Your task to perform on an android device: turn on the 24-hour format for clock Image 0: 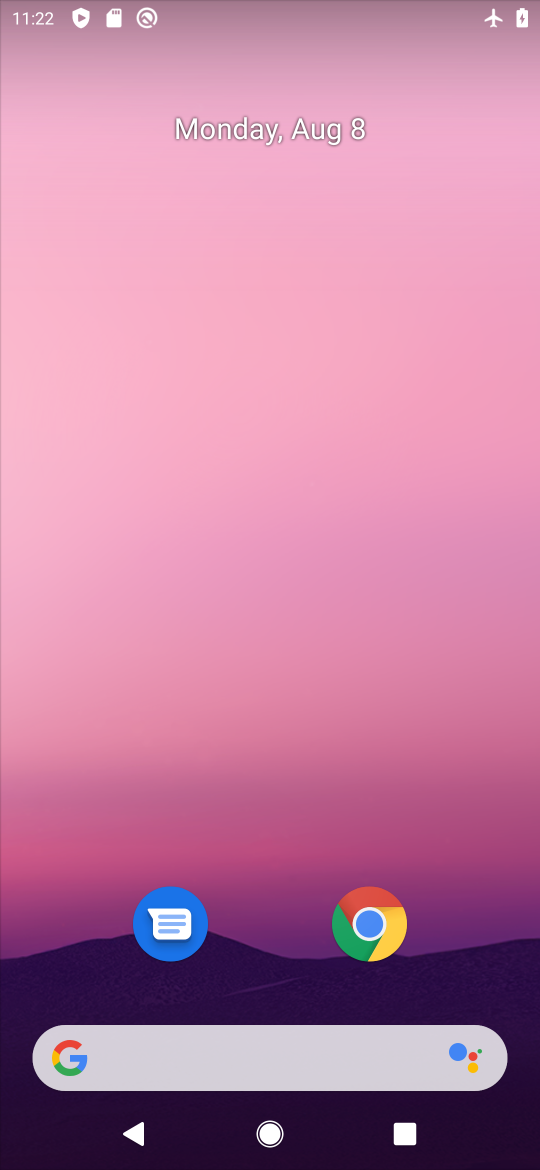
Step 0: drag from (237, 1000) to (253, 162)
Your task to perform on an android device: turn on the 24-hour format for clock Image 1: 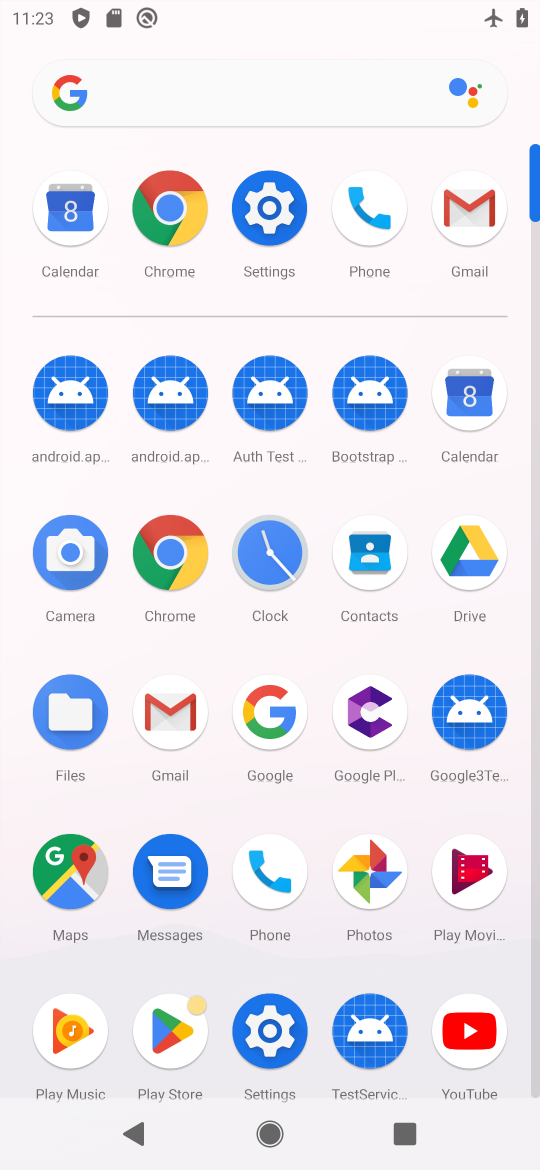
Step 1: click (287, 546)
Your task to perform on an android device: turn on the 24-hour format for clock Image 2: 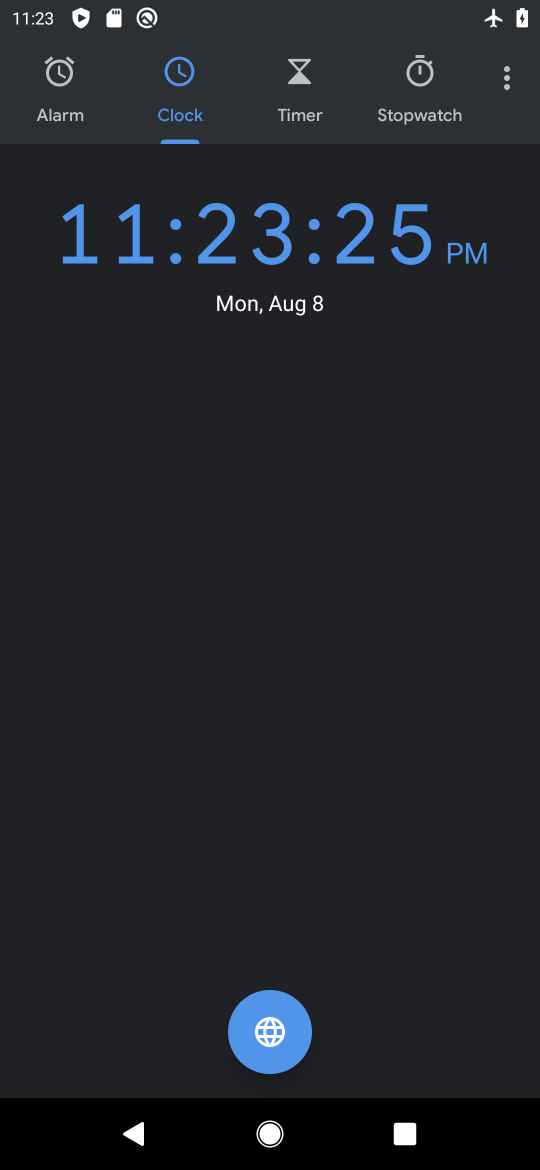
Step 2: click (506, 76)
Your task to perform on an android device: turn on the 24-hour format for clock Image 3: 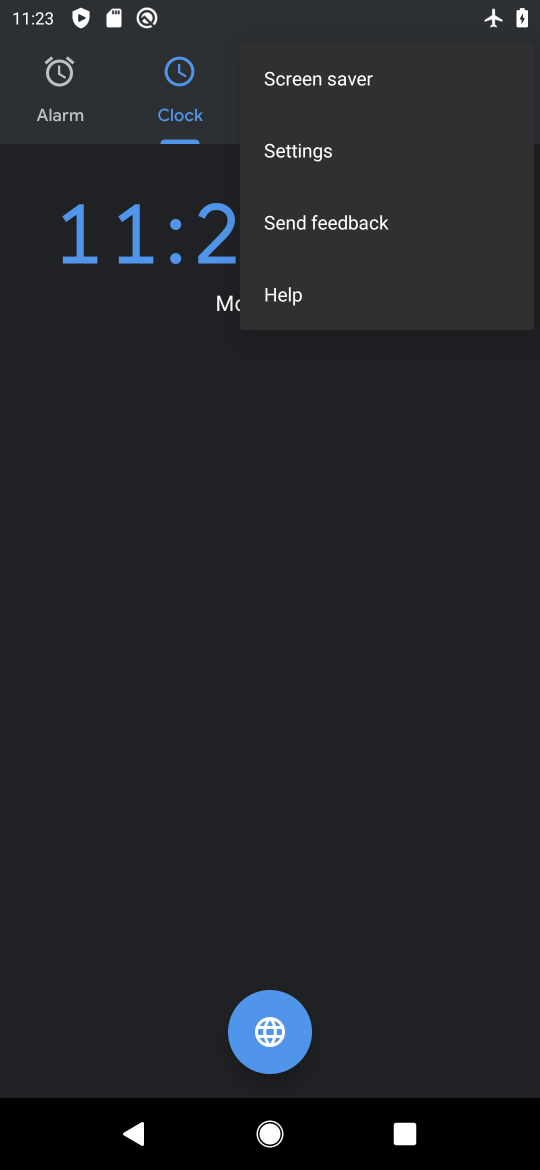
Step 3: click (331, 146)
Your task to perform on an android device: turn on the 24-hour format for clock Image 4: 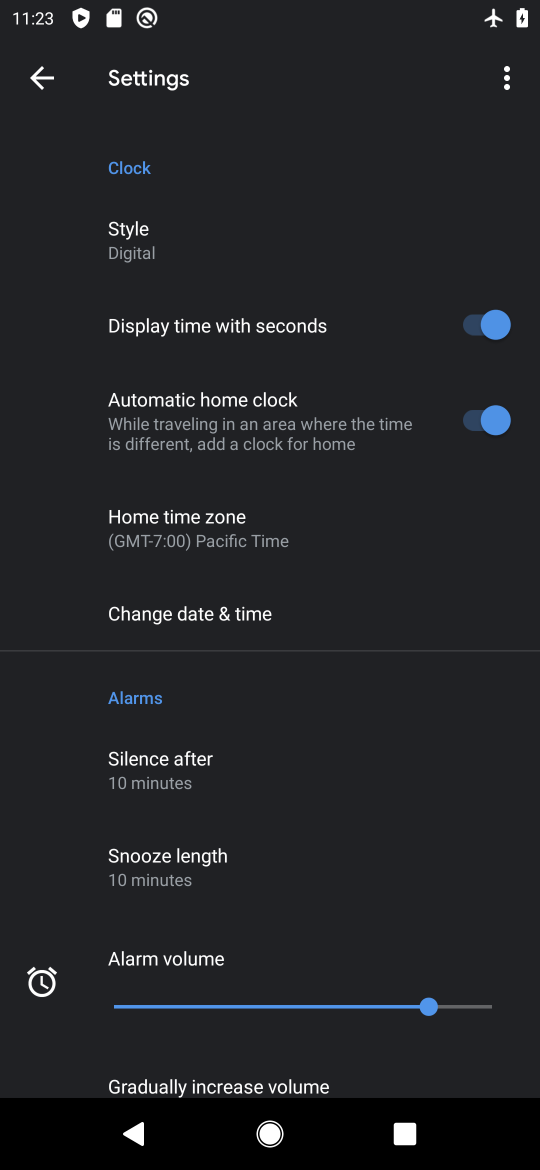
Step 4: click (198, 619)
Your task to perform on an android device: turn on the 24-hour format for clock Image 5: 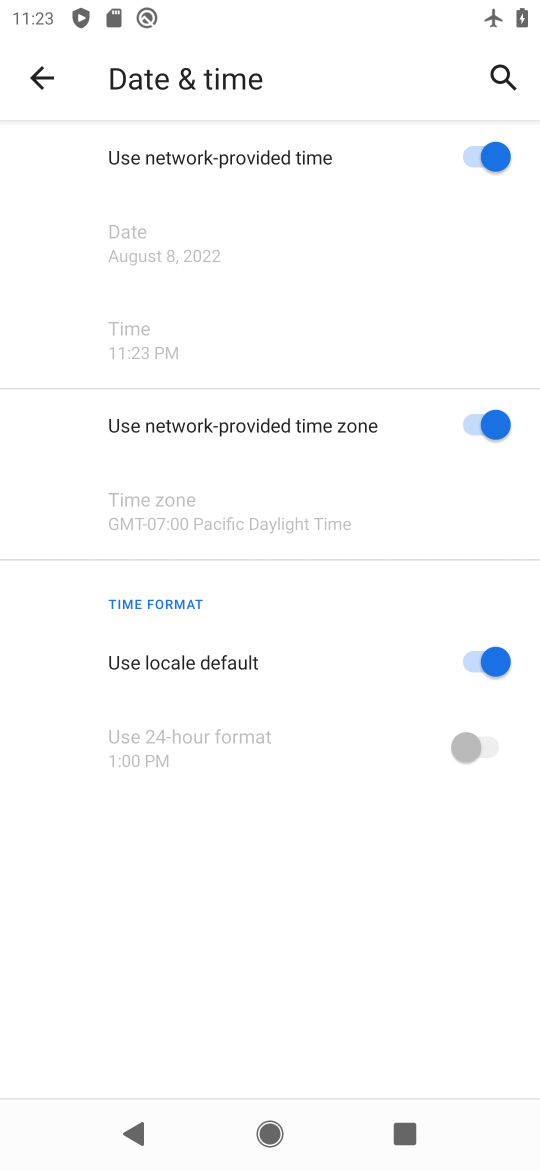
Step 5: click (503, 644)
Your task to perform on an android device: turn on the 24-hour format for clock Image 6: 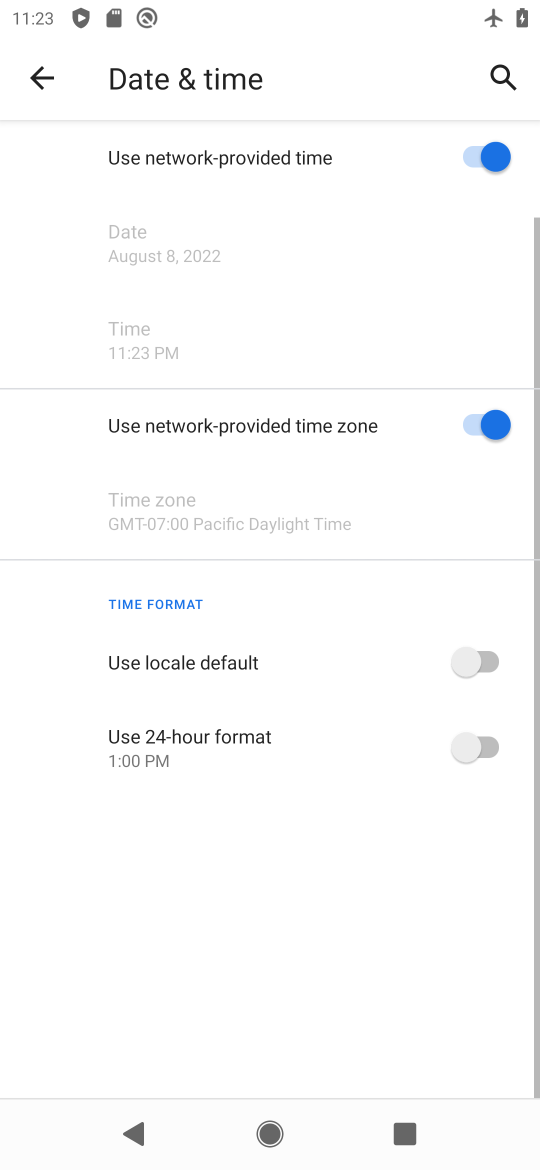
Step 6: click (457, 754)
Your task to perform on an android device: turn on the 24-hour format for clock Image 7: 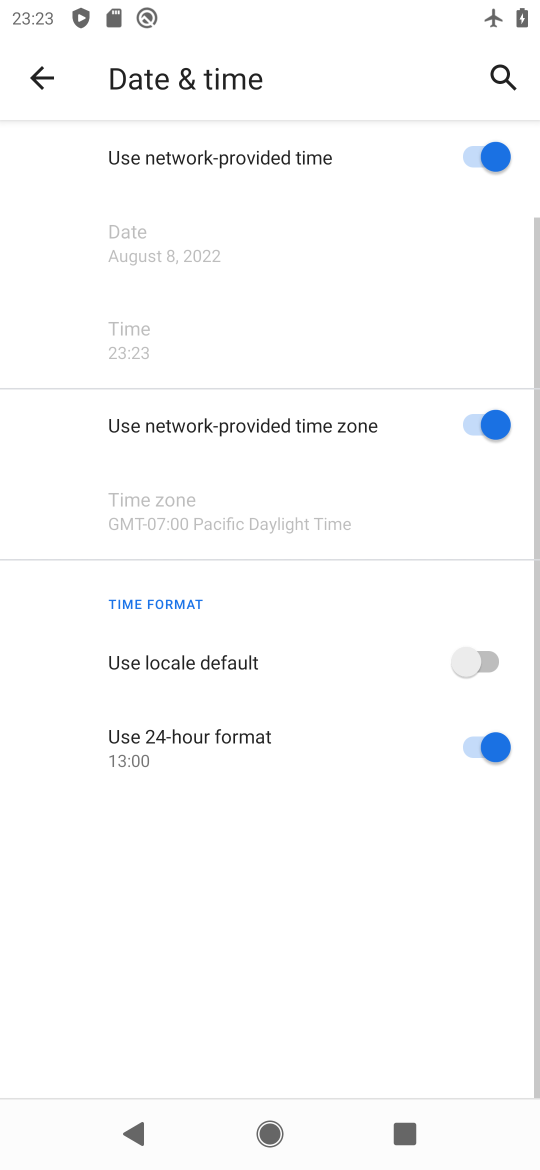
Step 7: task complete